Your task to perform on an android device: Open Chrome and go to settings Image 0: 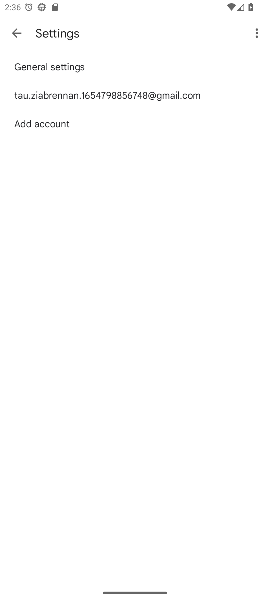
Step 0: press home button
Your task to perform on an android device: Open Chrome and go to settings Image 1: 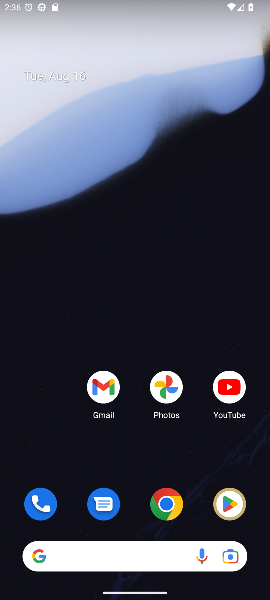
Step 1: click (165, 502)
Your task to perform on an android device: Open Chrome and go to settings Image 2: 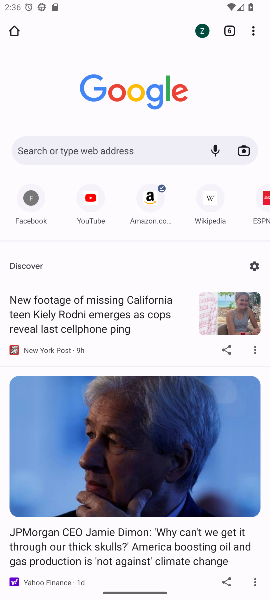
Step 2: click (254, 30)
Your task to perform on an android device: Open Chrome and go to settings Image 3: 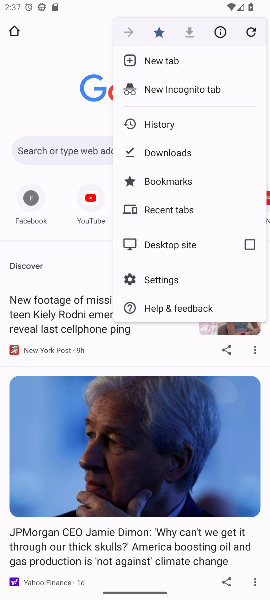
Step 3: click (163, 276)
Your task to perform on an android device: Open Chrome and go to settings Image 4: 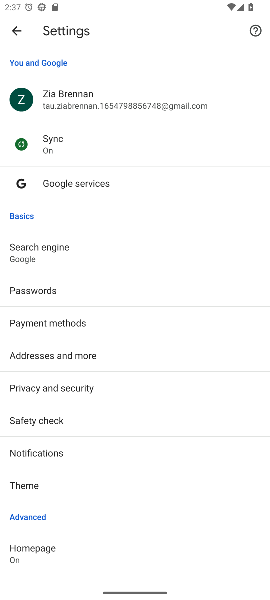
Step 4: task complete